Your task to perform on an android device: Go to internet settings Image 0: 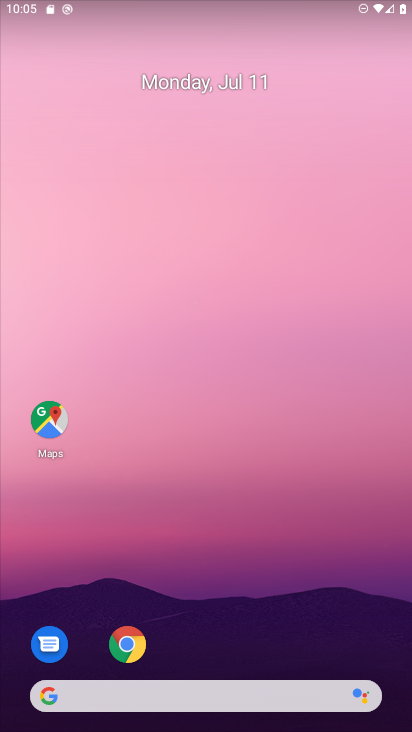
Step 0: click (174, 471)
Your task to perform on an android device: Go to internet settings Image 1: 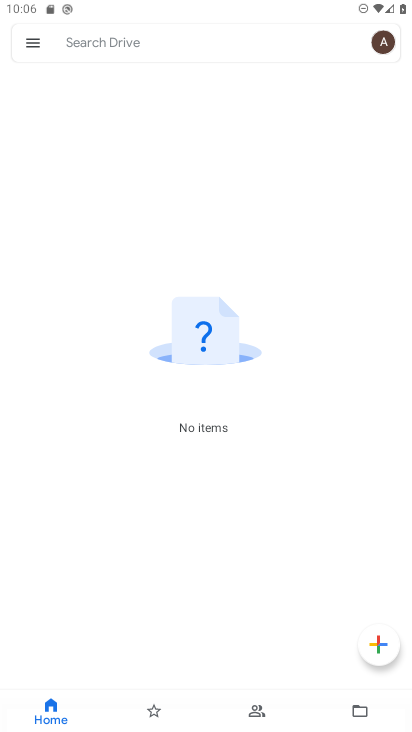
Step 1: press home button
Your task to perform on an android device: Go to internet settings Image 2: 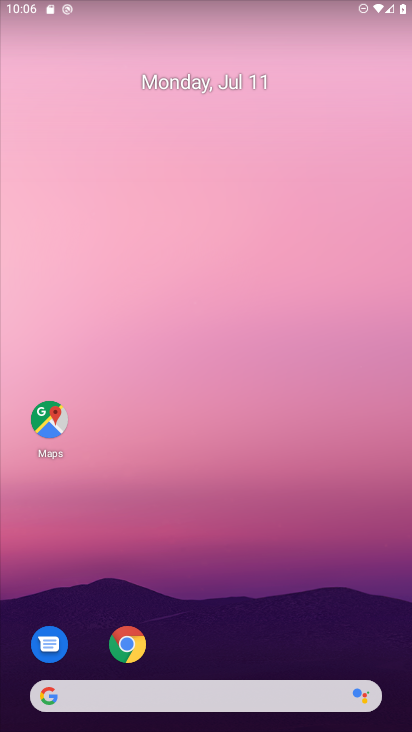
Step 2: drag from (133, 676) to (138, 295)
Your task to perform on an android device: Go to internet settings Image 3: 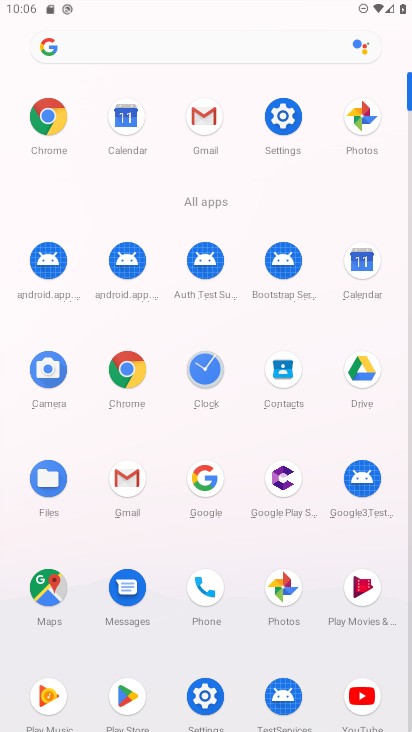
Step 3: click (289, 116)
Your task to perform on an android device: Go to internet settings Image 4: 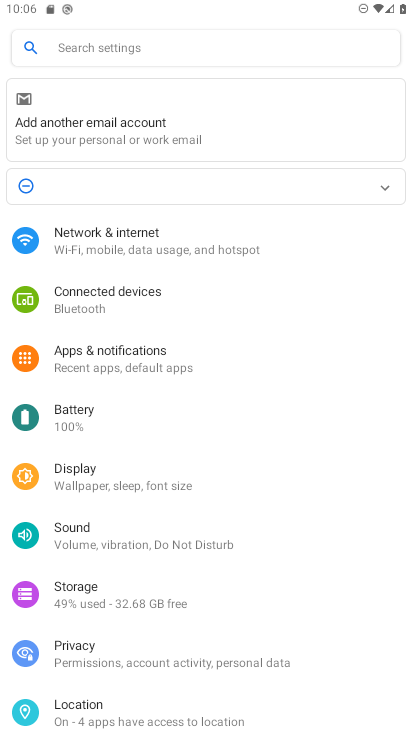
Step 4: click (142, 247)
Your task to perform on an android device: Go to internet settings Image 5: 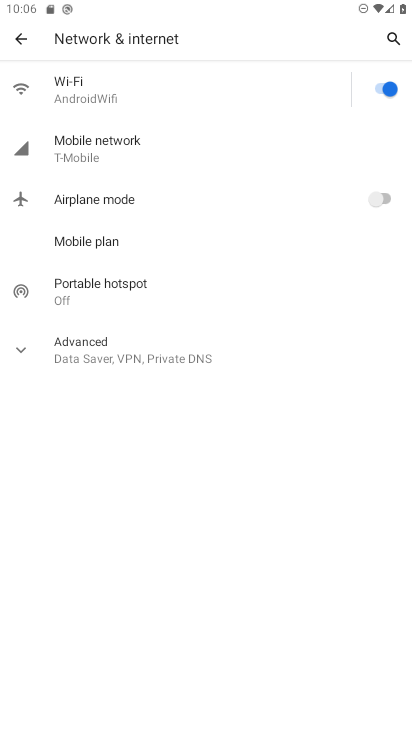
Step 5: click (107, 351)
Your task to perform on an android device: Go to internet settings Image 6: 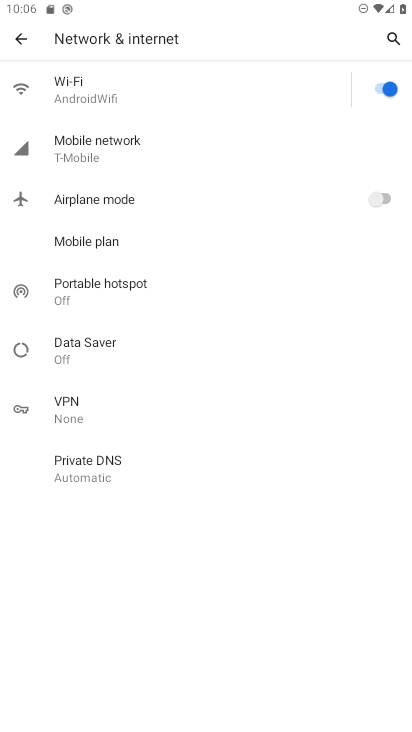
Step 6: task complete